Your task to perform on an android device: Open calendar and show me the third week of next month Image 0: 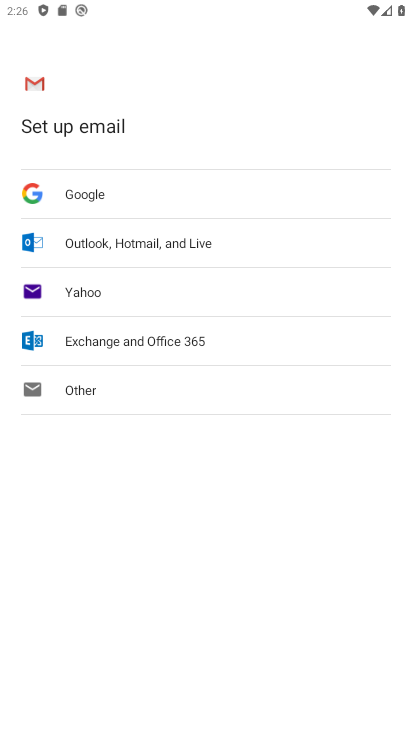
Step 0: press home button
Your task to perform on an android device: Open calendar and show me the third week of next month Image 1: 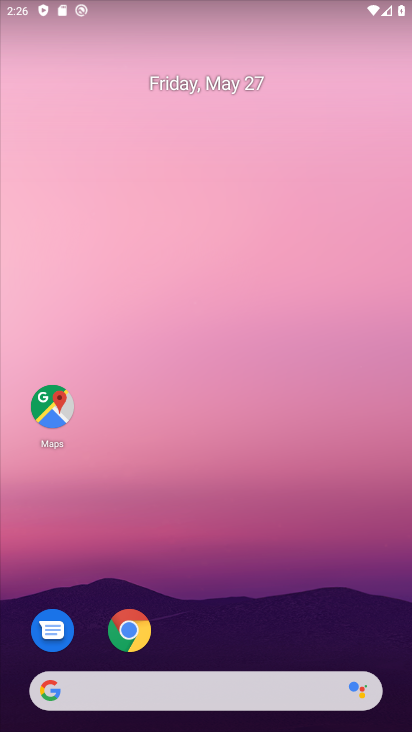
Step 1: drag from (227, 672) to (178, 5)
Your task to perform on an android device: Open calendar and show me the third week of next month Image 2: 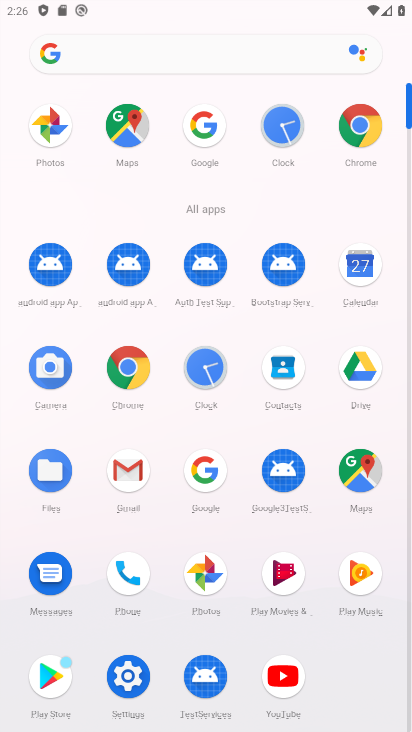
Step 2: click (368, 271)
Your task to perform on an android device: Open calendar and show me the third week of next month Image 3: 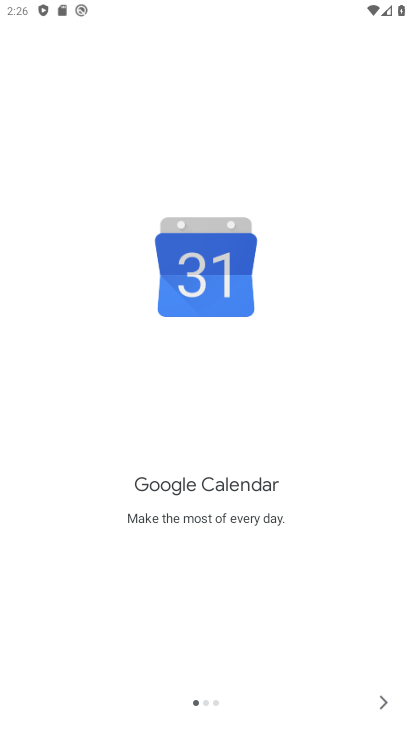
Step 3: click (379, 696)
Your task to perform on an android device: Open calendar and show me the third week of next month Image 4: 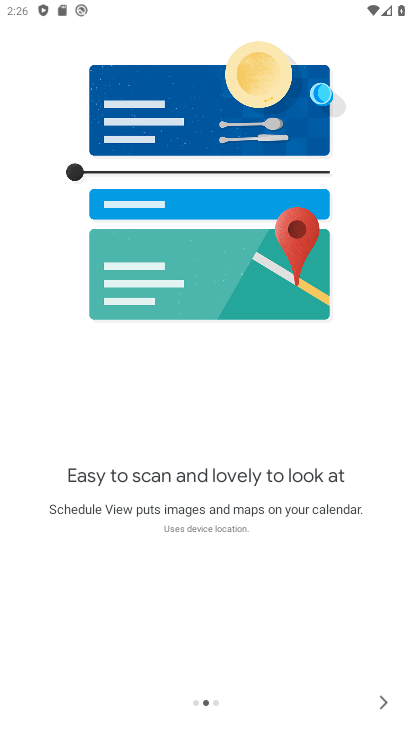
Step 4: click (379, 696)
Your task to perform on an android device: Open calendar and show me the third week of next month Image 5: 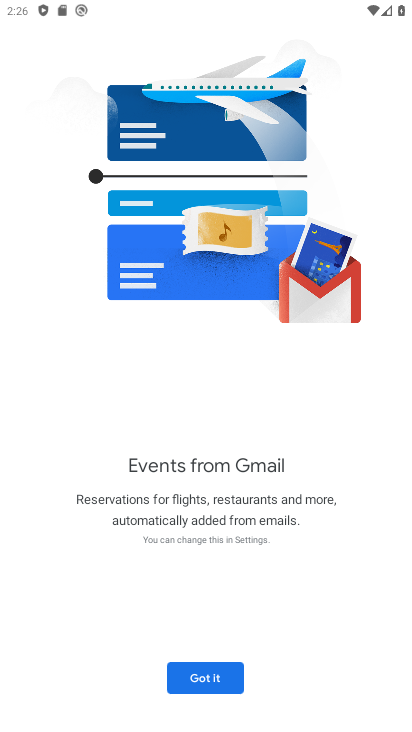
Step 5: click (183, 688)
Your task to perform on an android device: Open calendar and show me the third week of next month Image 6: 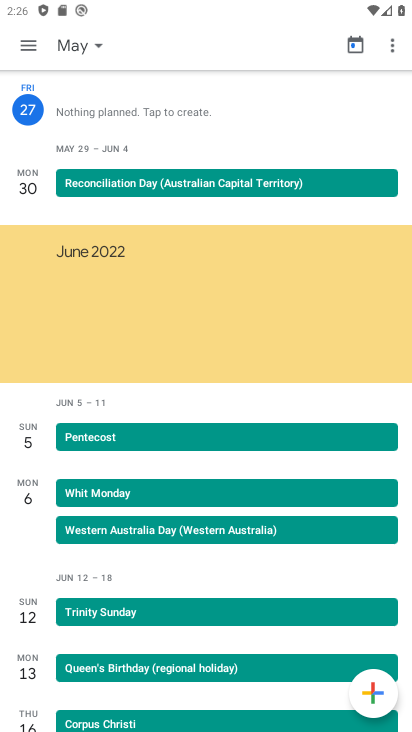
Step 6: click (33, 34)
Your task to perform on an android device: Open calendar and show me the third week of next month Image 7: 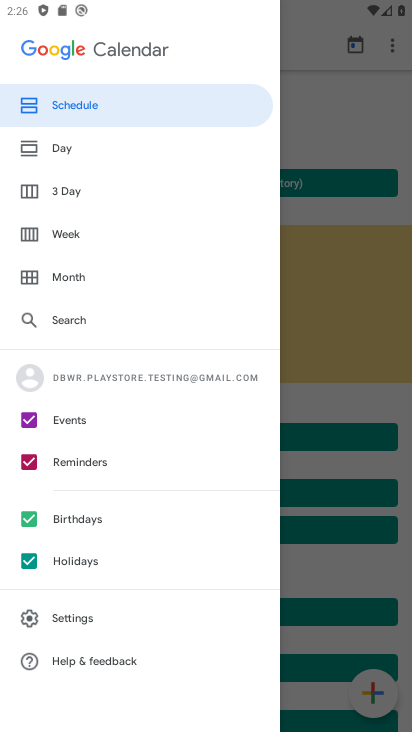
Step 7: click (61, 233)
Your task to perform on an android device: Open calendar and show me the third week of next month Image 8: 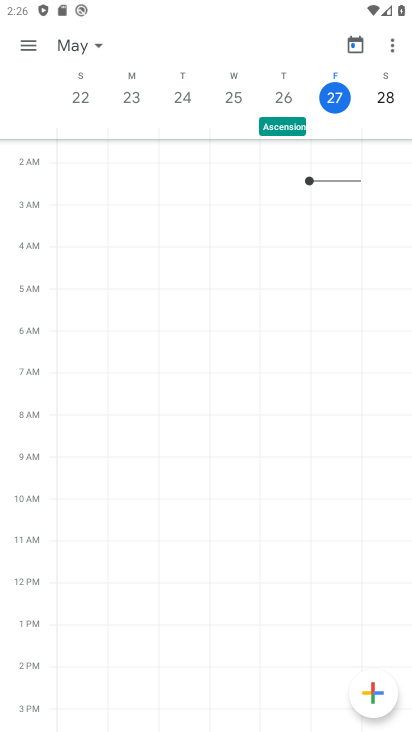
Step 8: task complete